Your task to perform on an android device: see creations saved in the google photos Image 0: 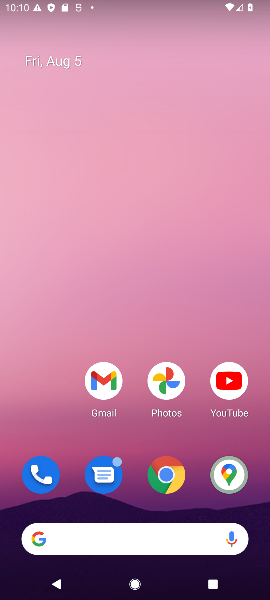
Step 0: drag from (112, 533) to (141, 314)
Your task to perform on an android device: see creations saved in the google photos Image 1: 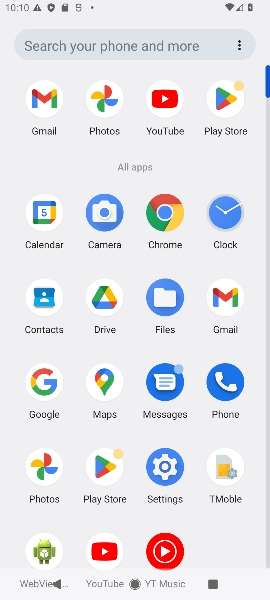
Step 1: click (46, 489)
Your task to perform on an android device: see creations saved in the google photos Image 2: 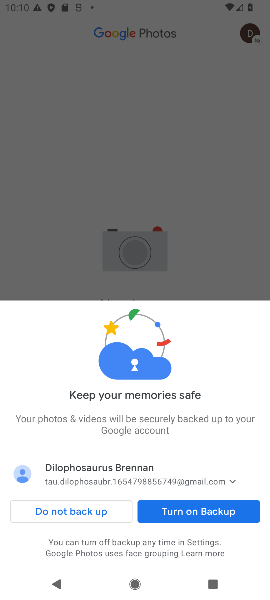
Step 2: click (81, 514)
Your task to perform on an android device: see creations saved in the google photos Image 3: 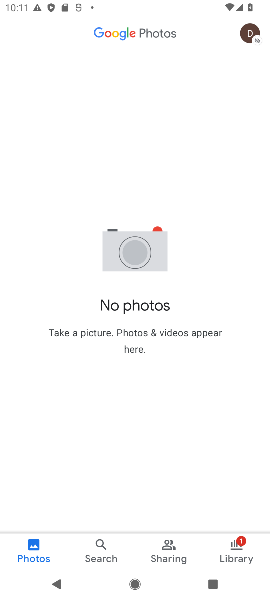
Step 3: task complete